Your task to perform on an android device: Show me productivity apps on the Play Store Image 0: 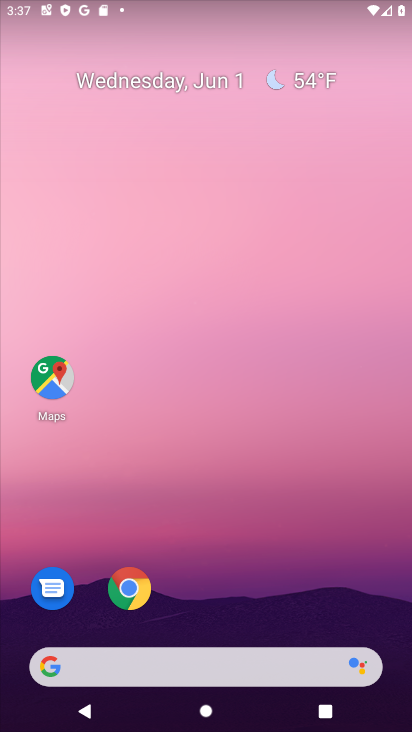
Step 0: drag from (221, 620) to (317, 112)
Your task to perform on an android device: Show me productivity apps on the Play Store Image 1: 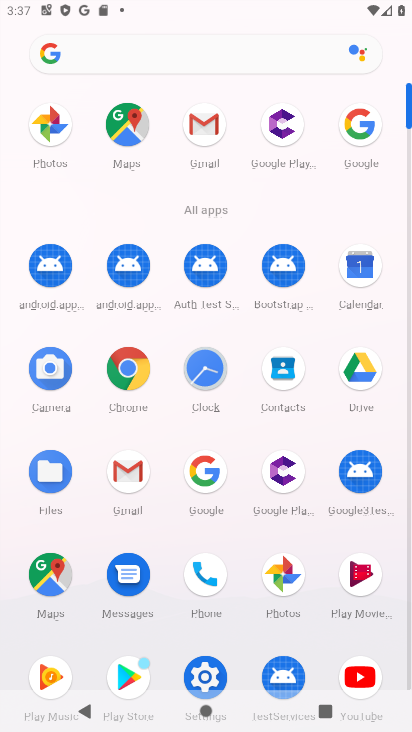
Step 1: click (104, 671)
Your task to perform on an android device: Show me productivity apps on the Play Store Image 2: 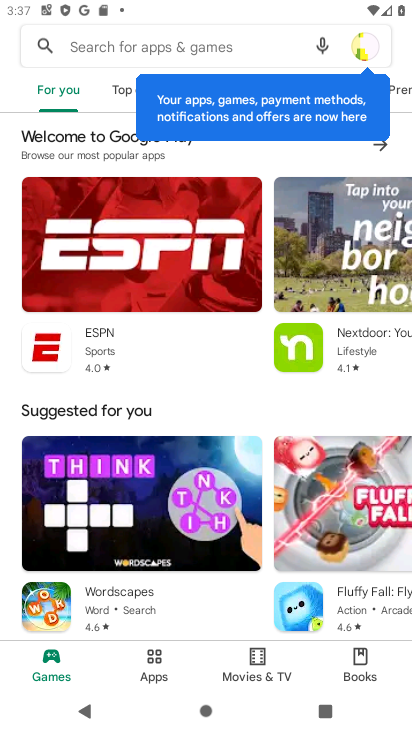
Step 2: click (153, 659)
Your task to perform on an android device: Show me productivity apps on the Play Store Image 3: 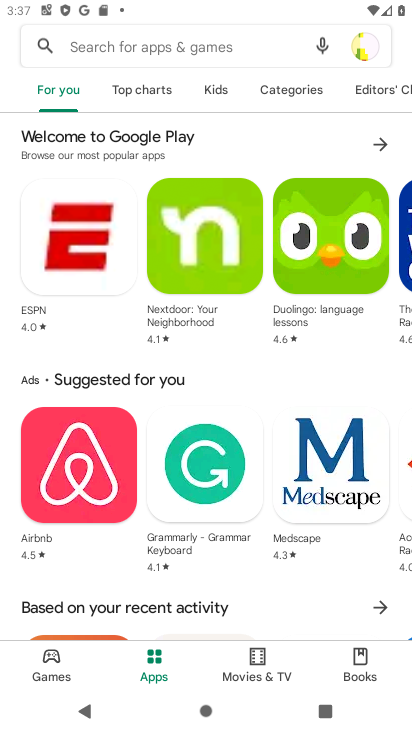
Step 3: click (281, 101)
Your task to perform on an android device: Show me productivity apps on the Play Store Image 4: 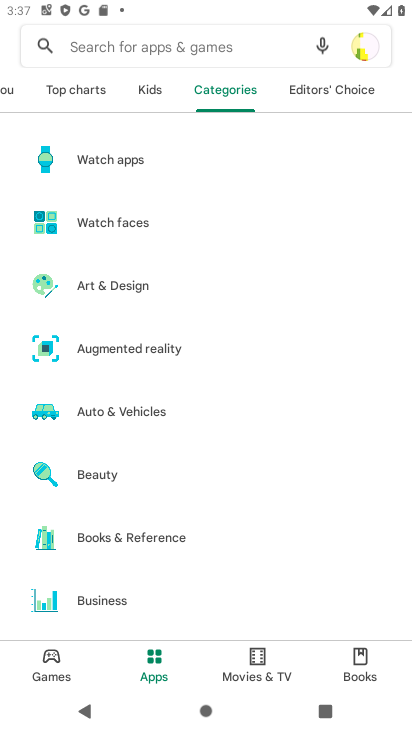
Step 4: drag from (140, 601) to (293, 180)
Your task to perform on an android device: Show me productivity apps on the Play Store Image 5: 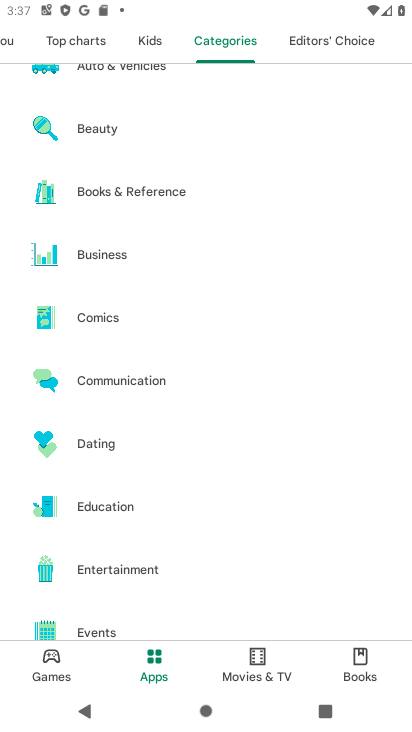
Step 5: drag from (222, 517) to (289, 272)
Your task to perform on an android device: Show me productivity apps on the Play Store Image 6: 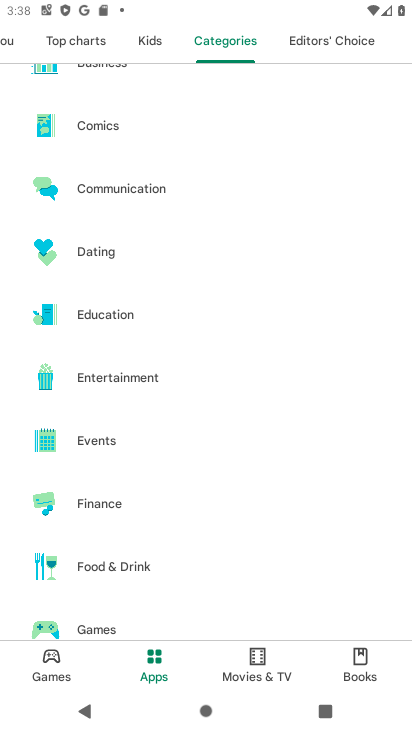
Step 6: drag from (151, 577) to (242, 319)
Your task to perform on an android device: Show me productivity apps on the Play Store Image 7: 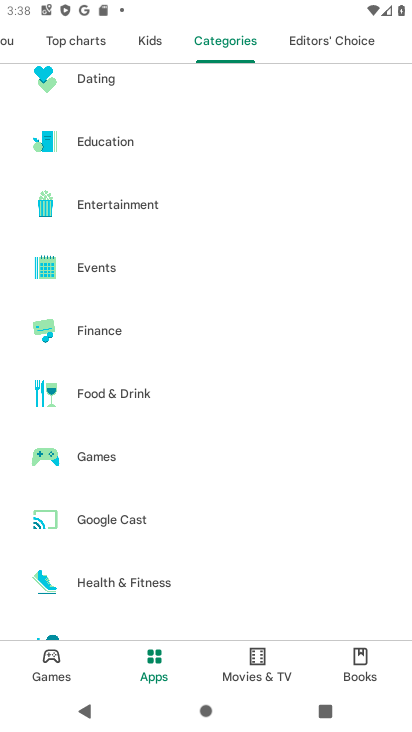
Step 7: drag from (158, 521) to (261, 231)
Your task to perform on an android device: Show me productivity apps on the Play Store Image 8: 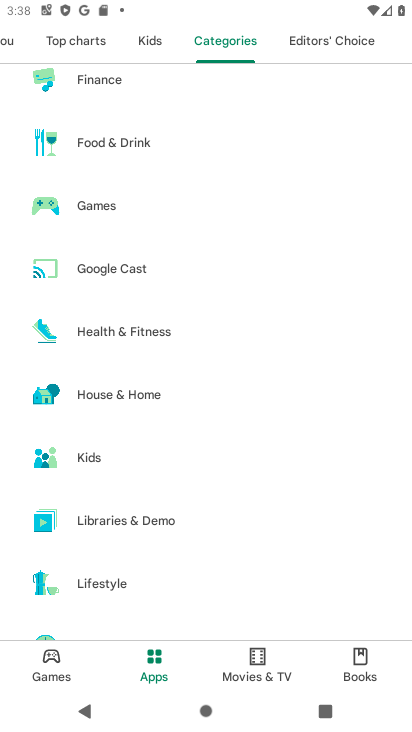
Step 8: drag from (138, 560) to (273, 205)
Your task to perform on an android device: Show me productivity apps on the Play Store Image 9: 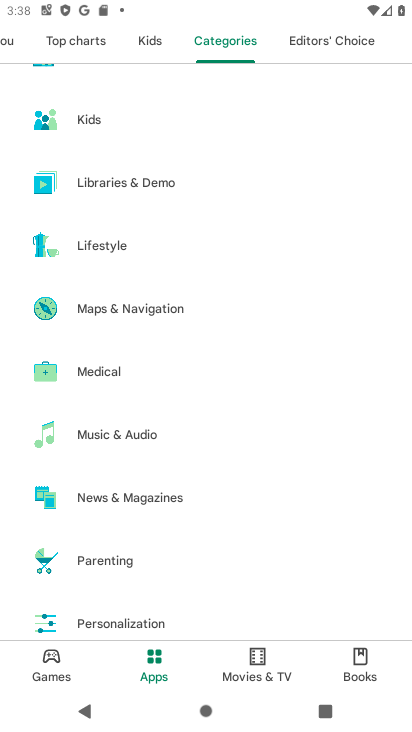
Step 9: drag from (142, 594) to (210, 316)
Your task to perform on an android device: Show me productivity apps on the Play Store Image 10: 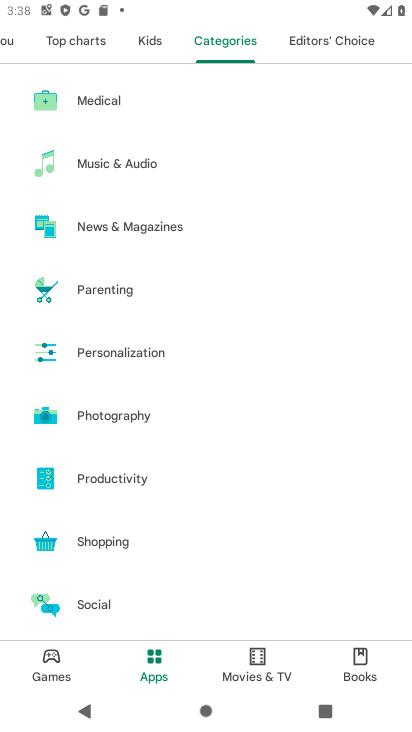
Step 10: click (130, 490)
Your task to perform on an android device: Show me productivity apps on the Play Store Image 11: 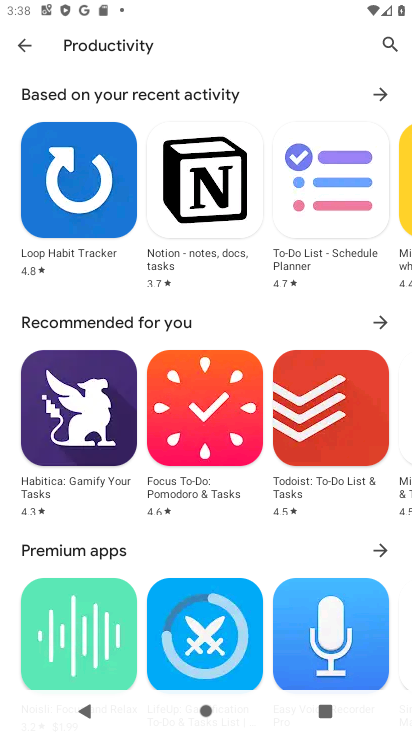
Step 11: task complete